Your task to perform on an android device: turn off wifi Image 0: 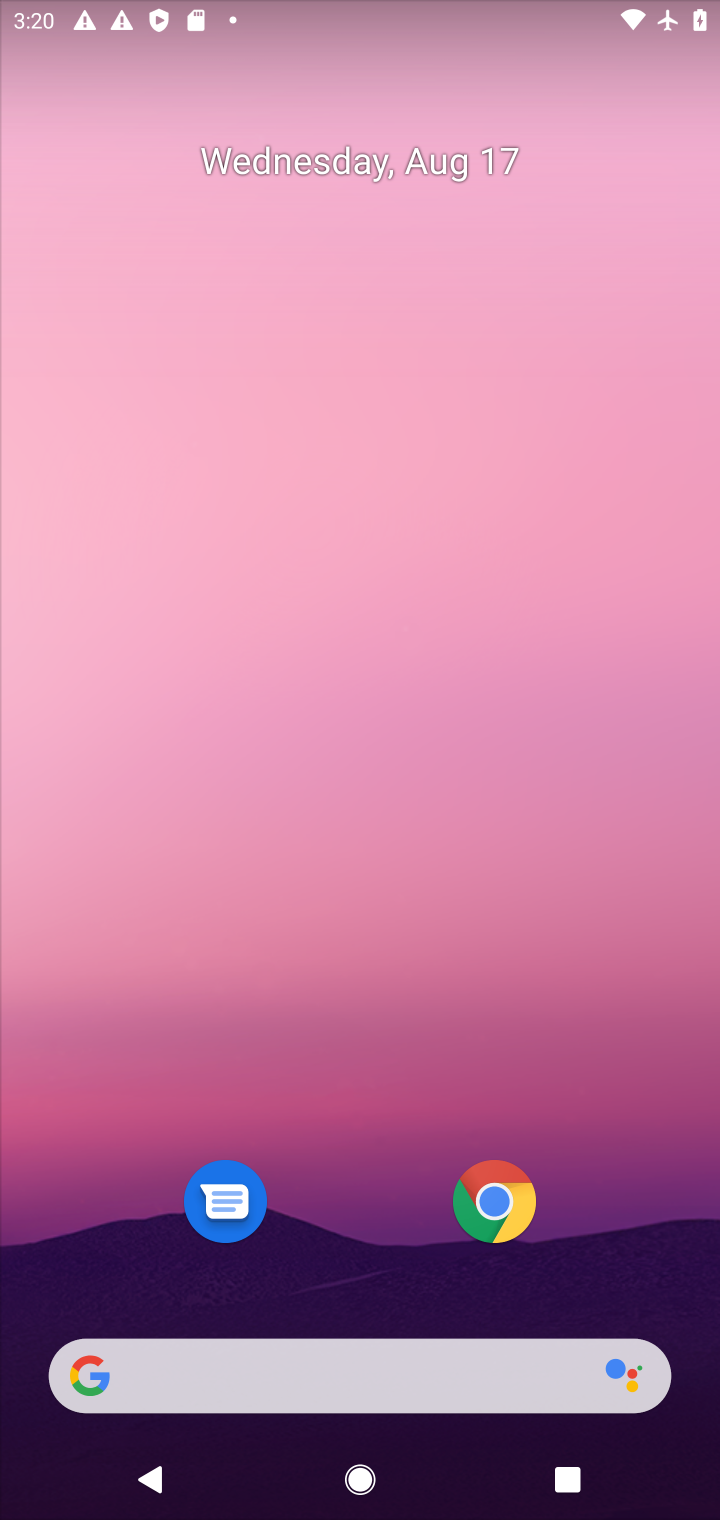
Step 0: drag from (376, 1101) to (512, 20)
Your task to perform on an android device: turn off wifi Image 1: 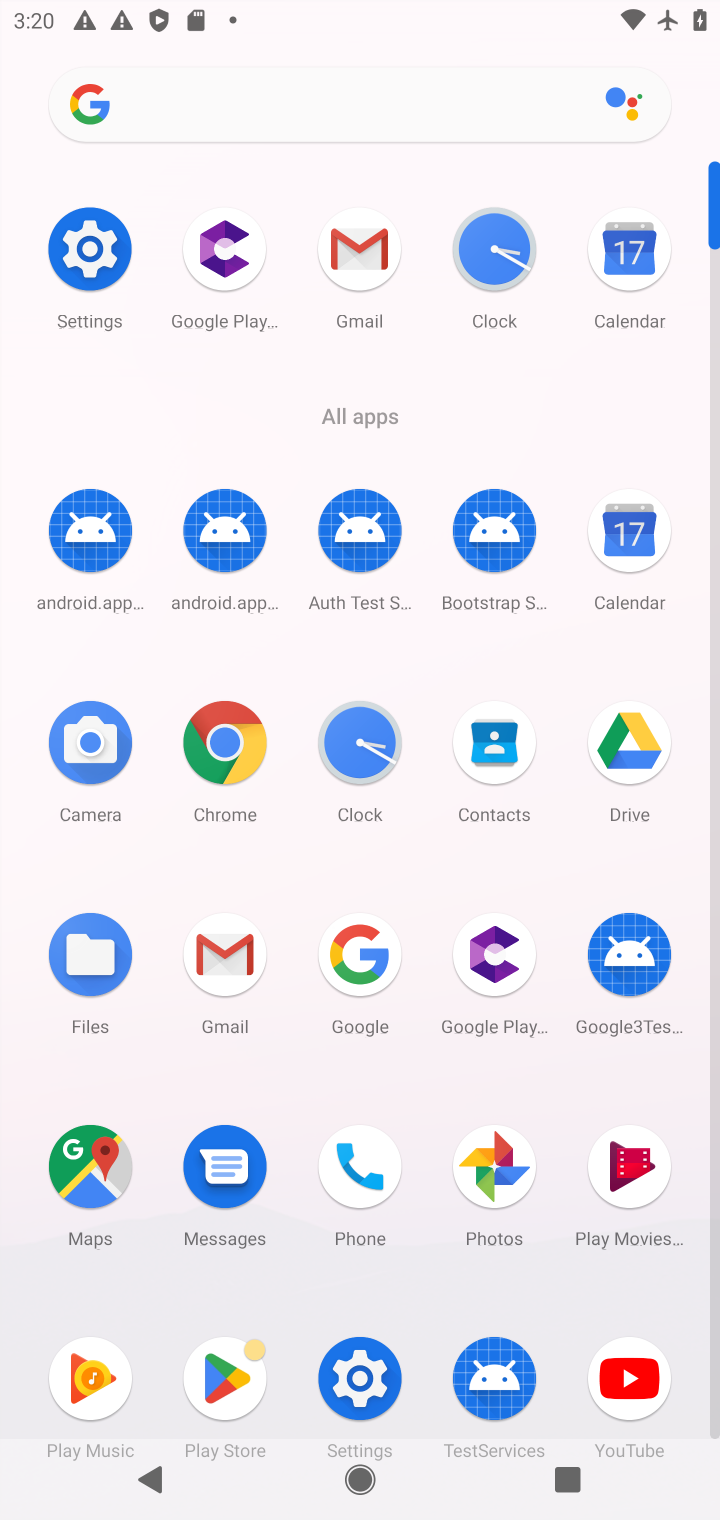
Step 1: click (352, 1363)
Your task to perform on an android device: turn off wifi Image 2: 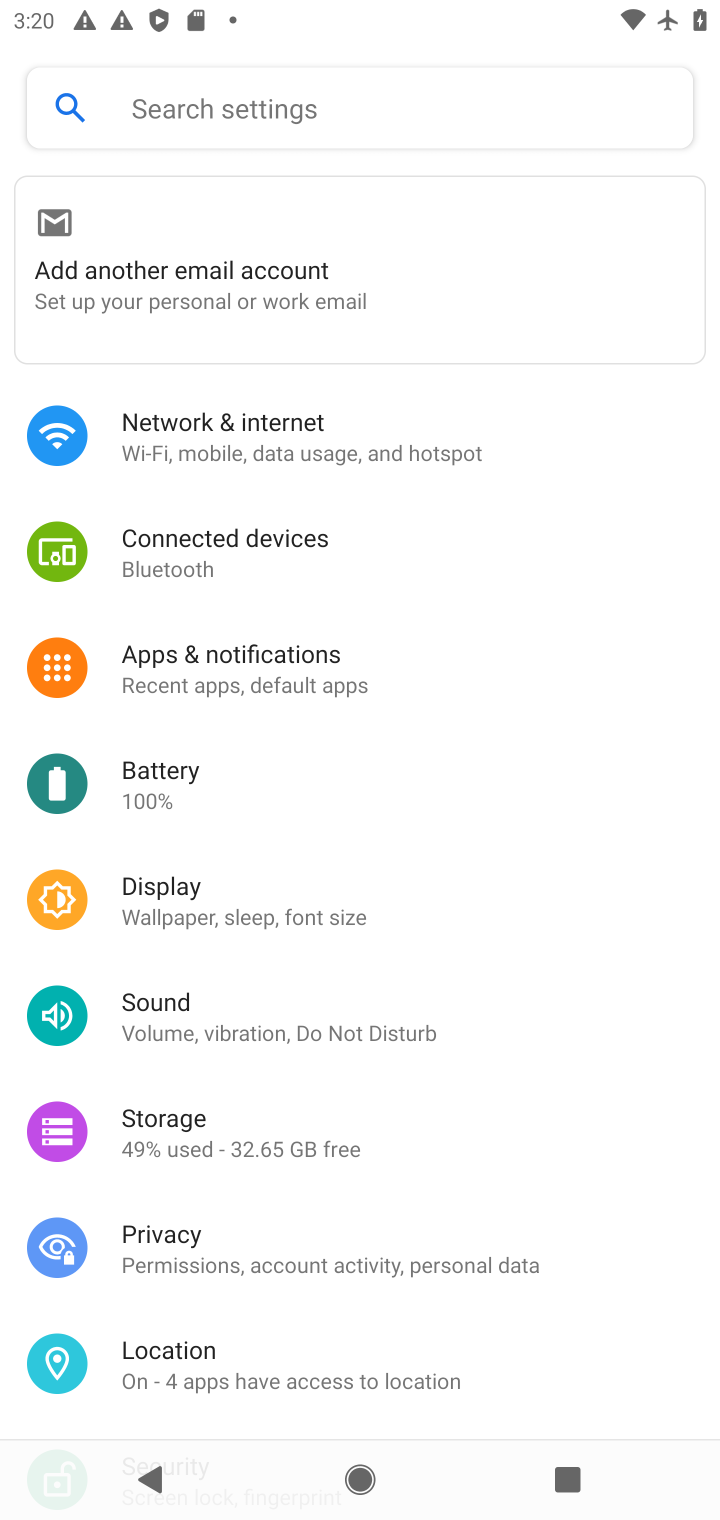
Step 2: click (259, 447)
Your task to perform on an android device: turn off wifi Image 3: 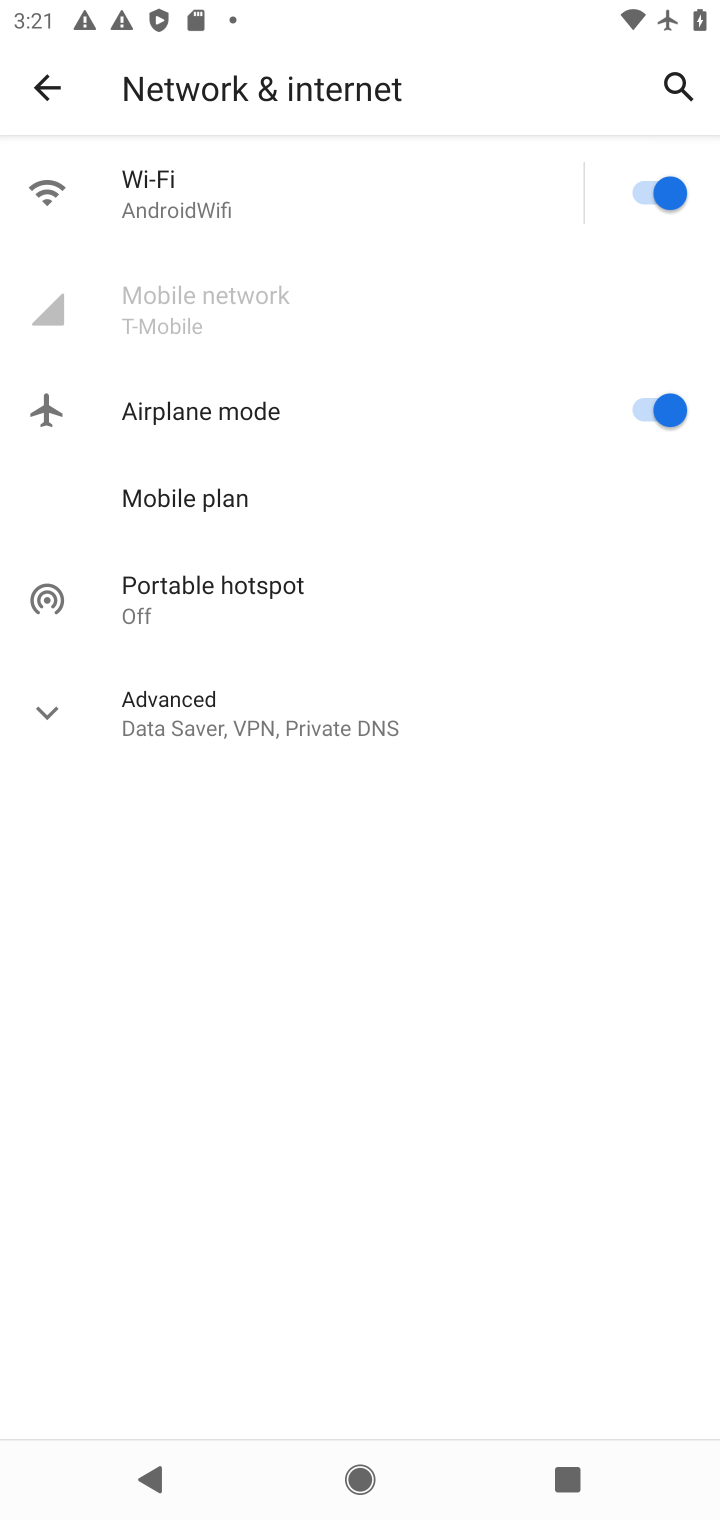
Step 3: click (615, 195)
Your task to perform on an android device: turn off wifi Image 4: 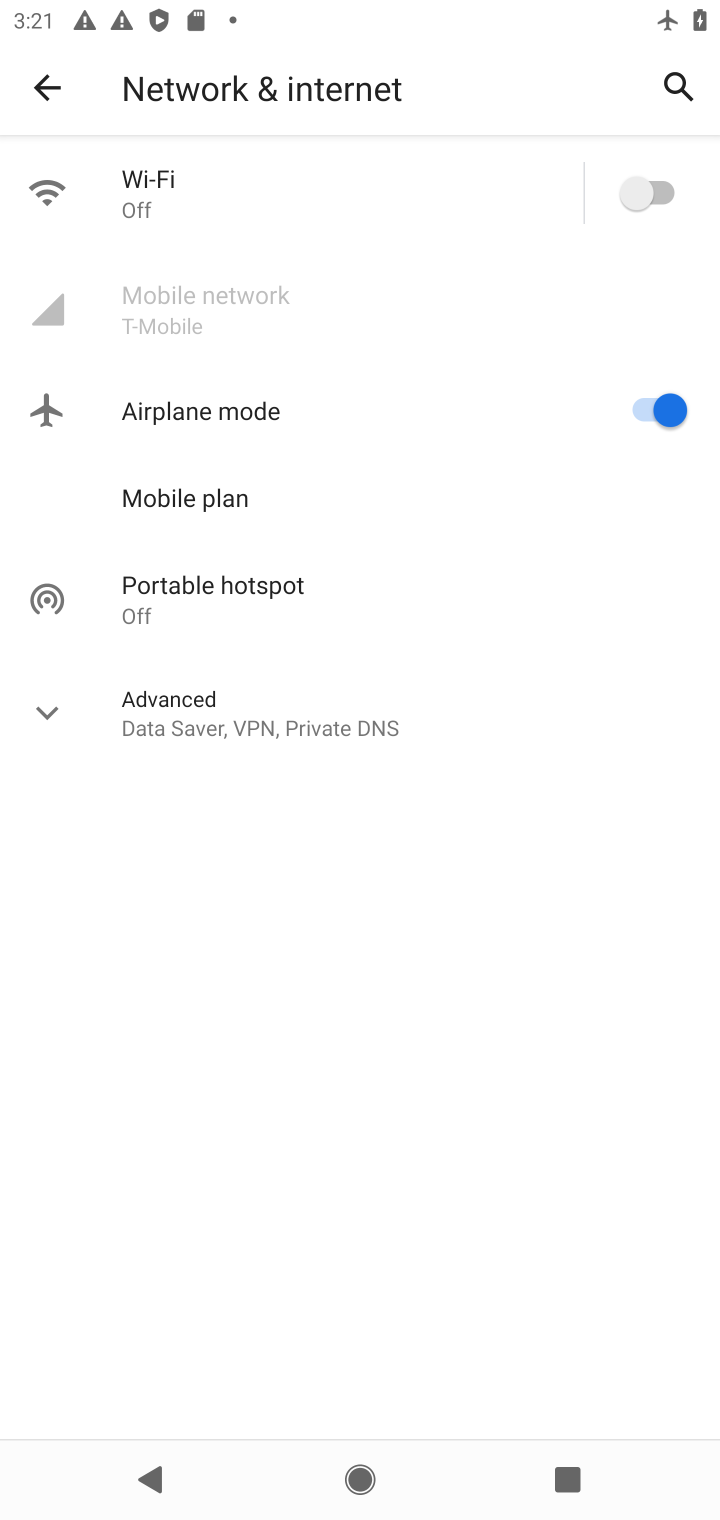
Step 4: task complete